Your task to perform on an android device: turn on the 12-hour format for clock Image 0: 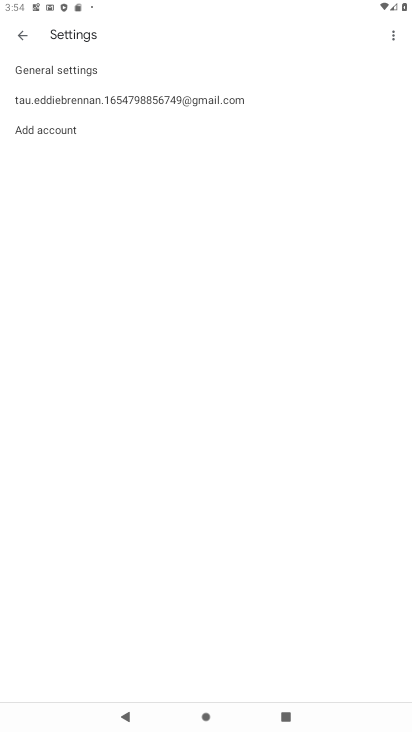
Step 0: press home button
Your task to perform on an android device: turn on the 12-hour format for clock Image 1: 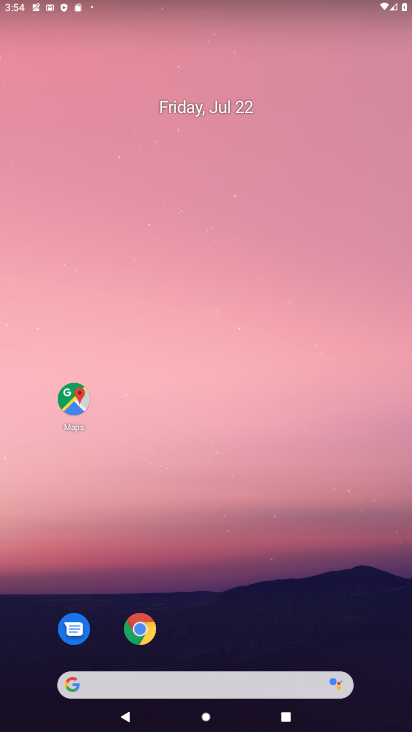
Step 1: drag from (264, 609) to (287, 66)
Your task to perform on an android device: turn on the 12-hour format for clock Image 2: 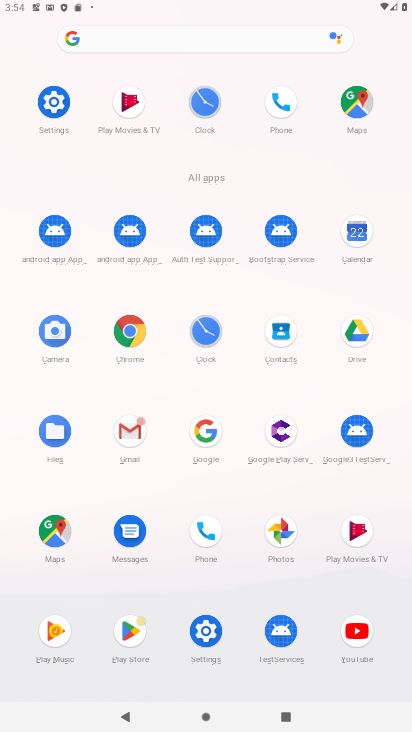
Step 2: click (210, 348)
Your task to perform on an android device: turn on the 12-hour format for clock Image 3: 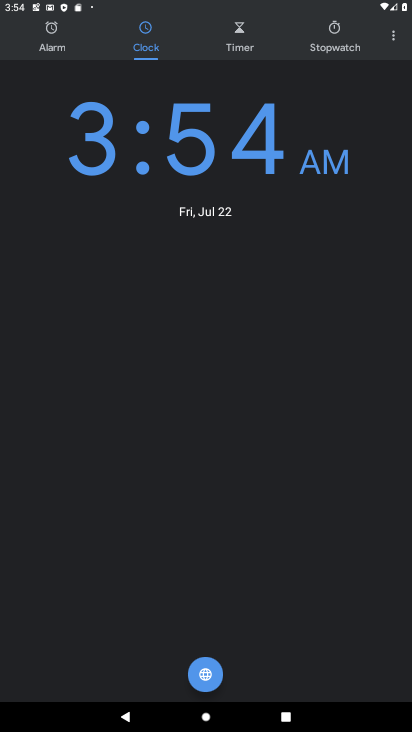
Step 3: click (391, 40)
Your task to perform on an android device: turn on the 12-hour format for clock Image 4: 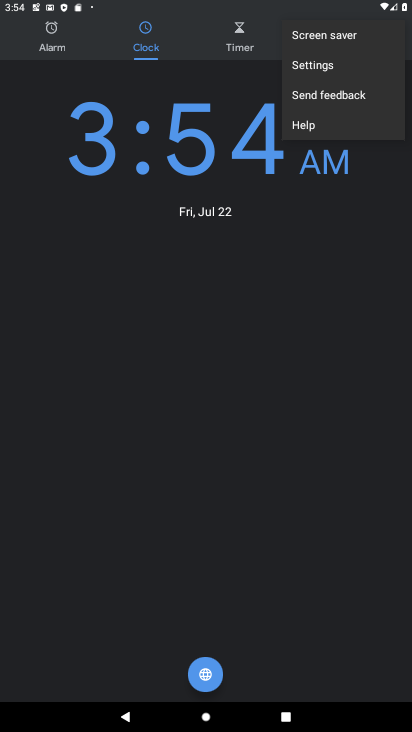
Step 4: click (312, 70)
Your task to perform on an android device: turn on the 12-hour format for clock Image 5: 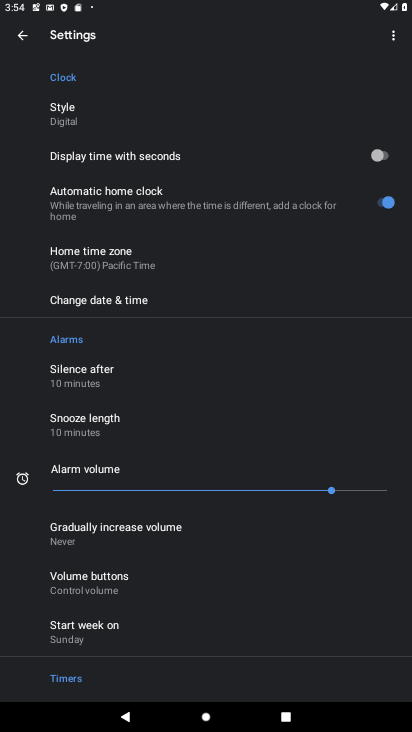
Step 5: click (120, 309)
Your task to perform on an android device: turn on the 12-hour format for clock Image 6: 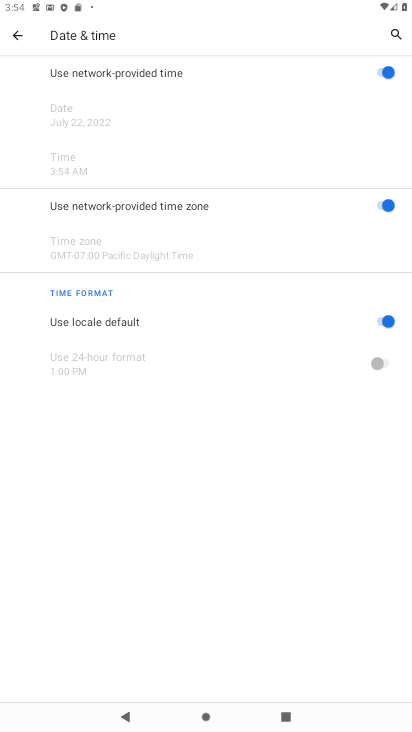
Step 6: task complete